Your task to perform on an android device: allow cookies in the chrome app Image 0: 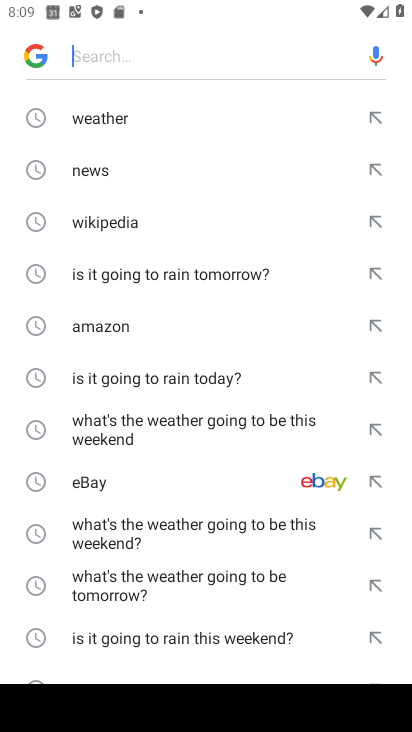
Step 0: press home button
Your task to perform on an android device: allow cookies in the chrome app Image 1: 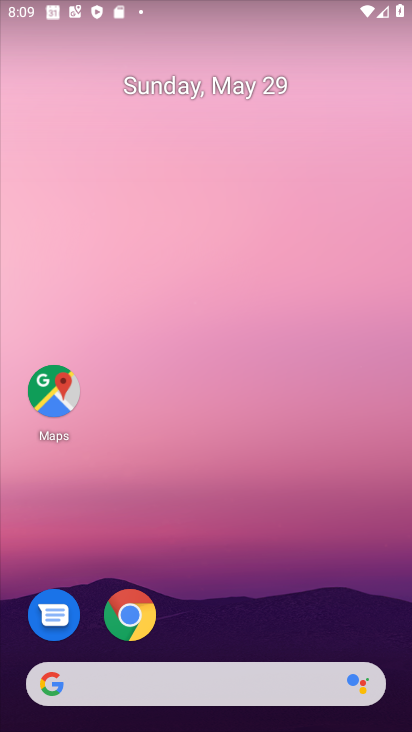
Step 1: click (147, 615)
Your task to perform on an android device: allow cookies in the chrome app Image 2: 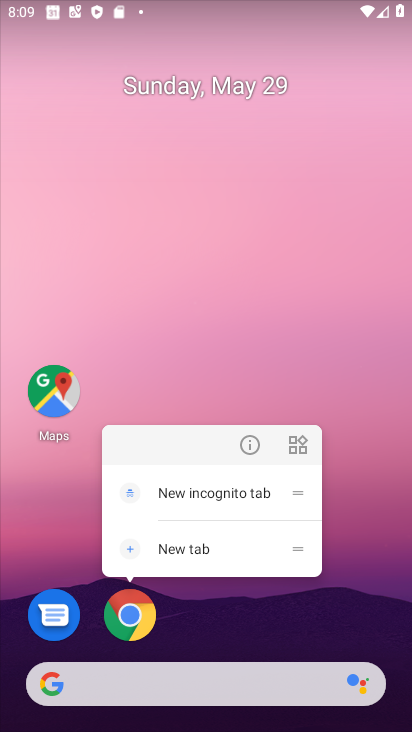
Step 2: click (125, 614)
Your task to perform on an android device: allow cookies in the chrome app Image 3: 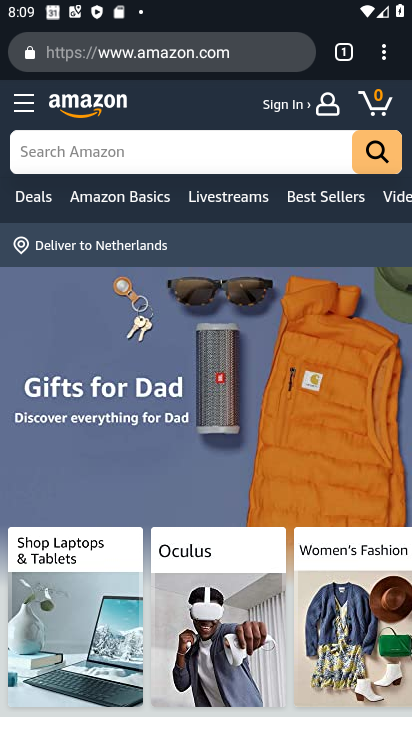
Step 3: click (384, 52)
Your task to perform on an android device: allow cookies in the chrome app Image 4: 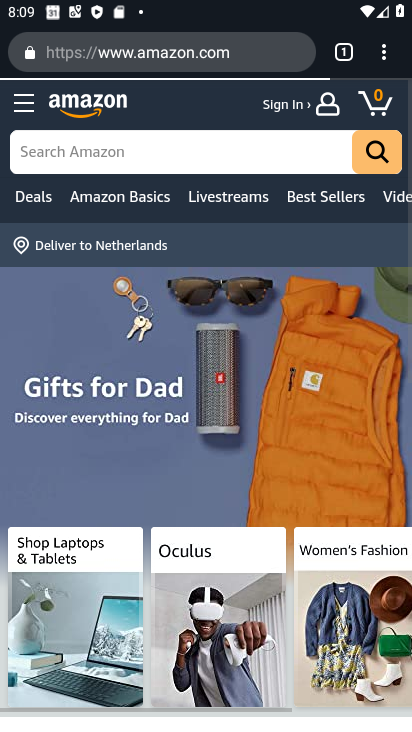
Step 4: drag from (383, 52) to (217, 573)
Your task to perform on an android device: allow cookies in the chrome app Image 5: 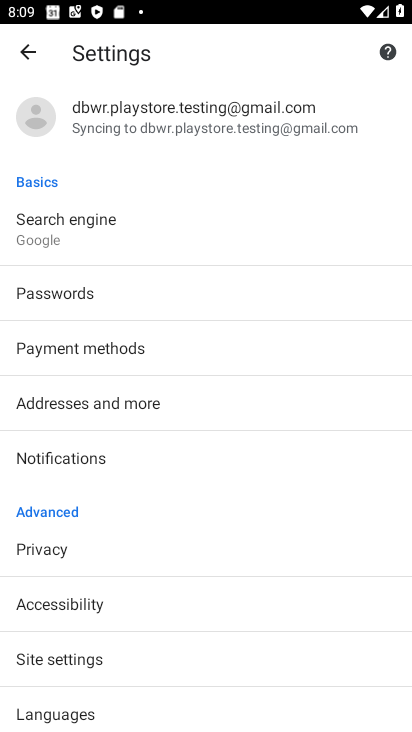
Step 5: click (49, 658)
Your task to perform on an android device: allow cookies in the chrome app Image 6: 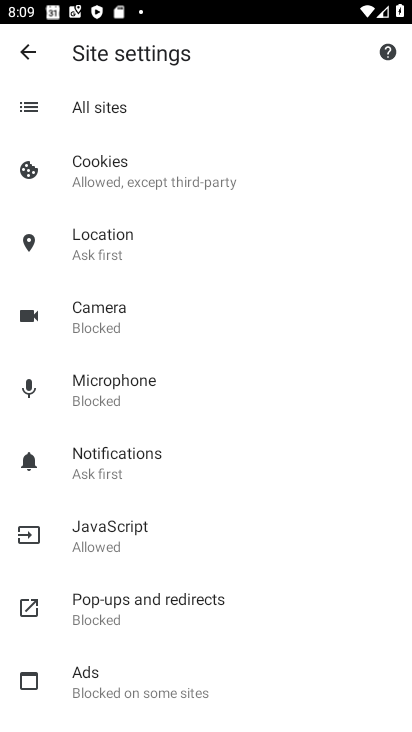
Step 6: click (149, 188)
Your task to perform on an android device: allow cookies in the chrome app Image 7: 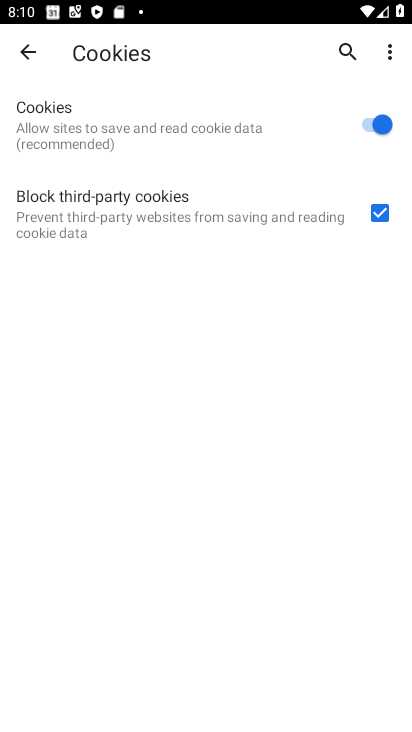
Step 7: task complete